Your task to perform on an android device: turn on bluetooth scan Image 0: 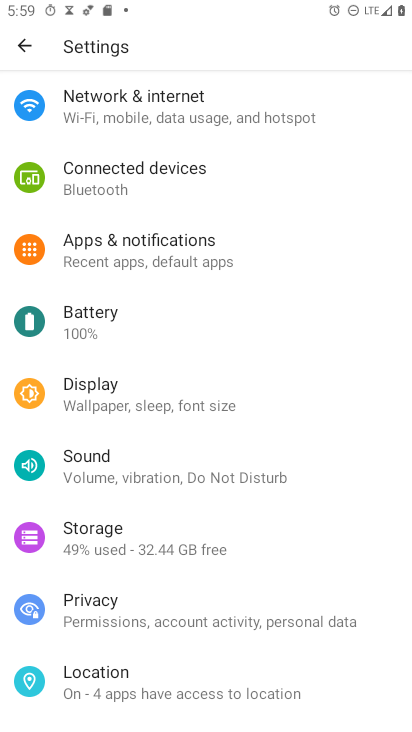
Step 0: click (193, 690)
Your task to perform on an android device: turn on bluetooth scan Image 1: 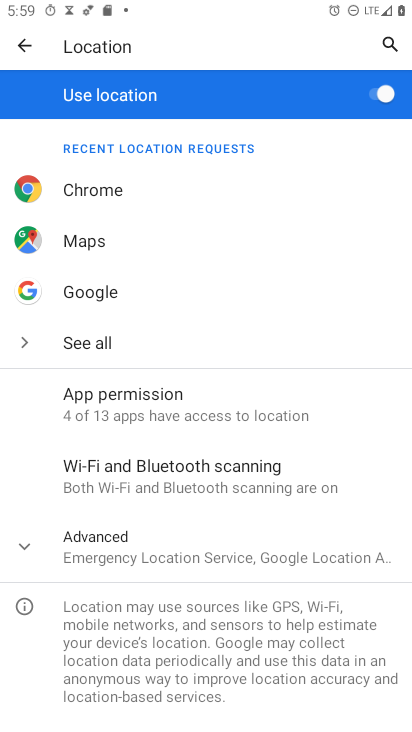
Step 1: click (252, 467)
Your task to perform on an android device: turn on bluetooth scan Image 2: 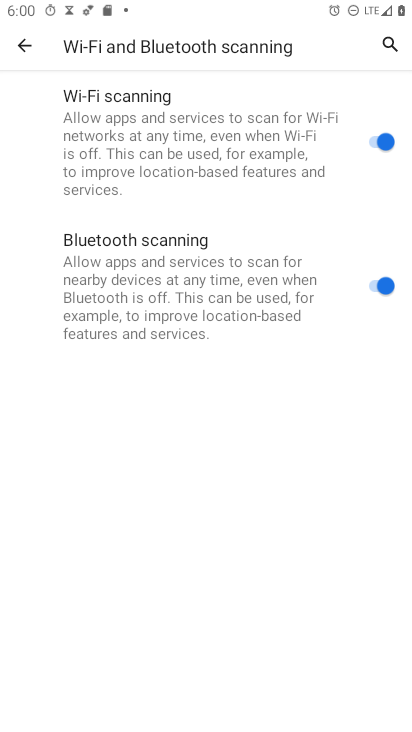
Step 2: task complete